Your task to perform on an android device: When is my next meeting? Image 0: 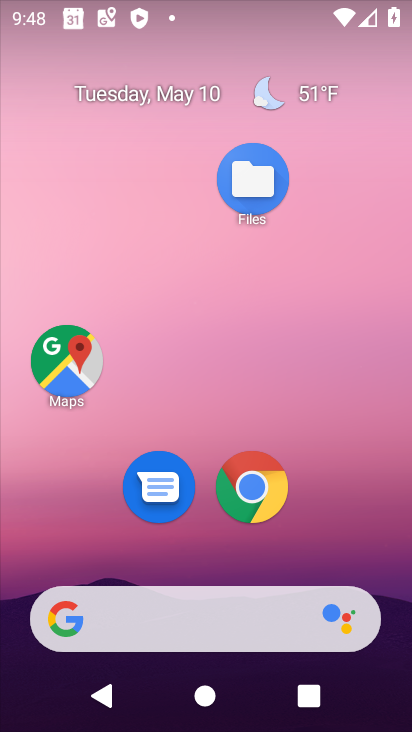
Step 0: drag from (215, 539) to (184, 129)
Your task to perform on an android device: When is my next meeting? Image 1: 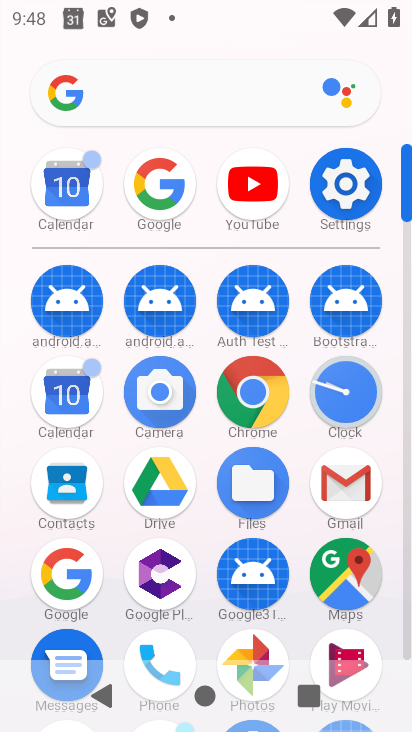
Step 1: click (68, 394)
Your task to perform on an android device: When is my next meeting? Image 2: 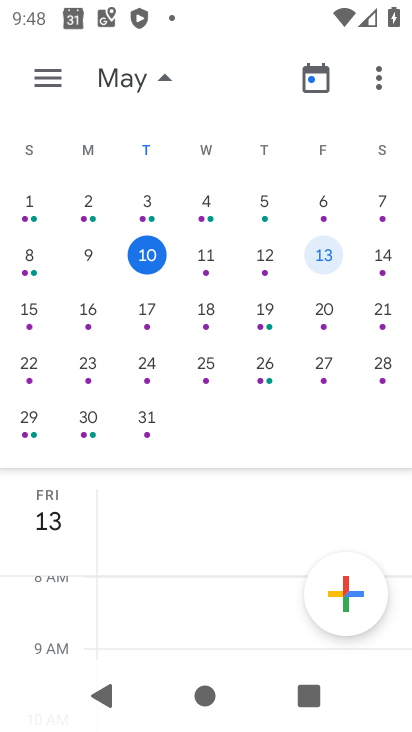
Step 2: click (262, 258)
Your task to perform on an android device: When is my next meeting? Image 3: 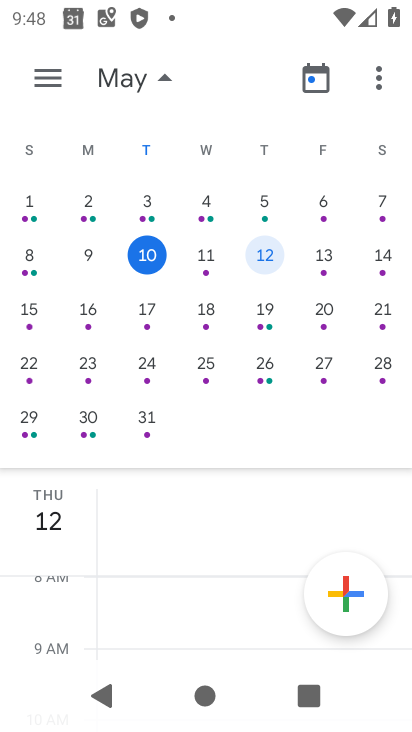
Step 3: task complete